Your task to perform on an android device: Do I have any events this weekend? Image 0: 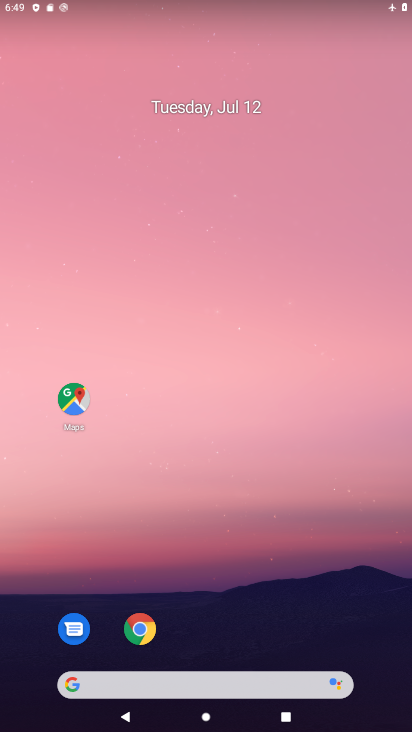
Step 0: drag from (257, 569) to (164, 90)
Your task to perform on an android device: Do I have any events this weekend? Image 1: 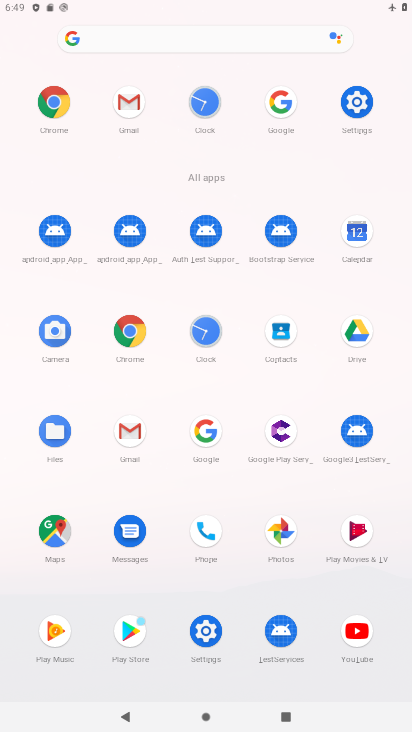
Step 1: click (358, 231)
Your task to perform on an android device: Do I have any events this weekend? Image 2: 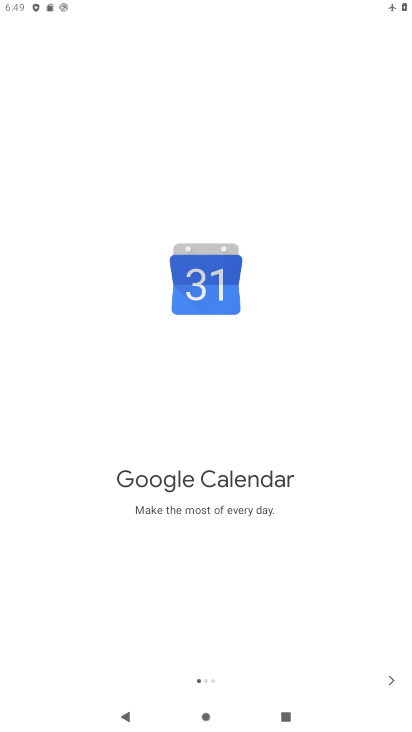
Step 2: click (387, 681)
Your task to perform on an android device: Do I have any events this weekend? Image 3: 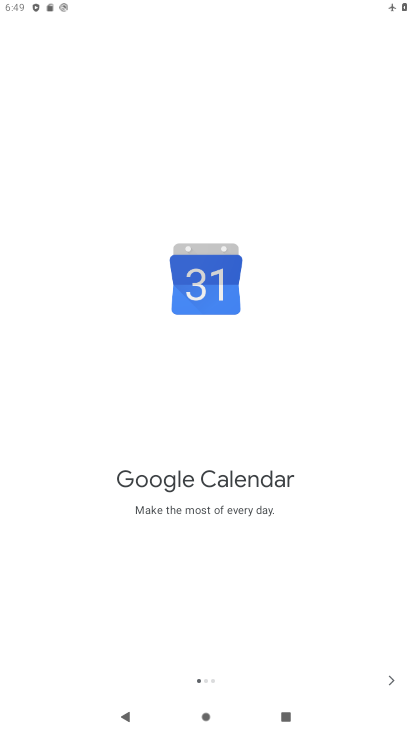
Step 3: click (387, 681)
Your task to perform on an android device: Do I have any events this weekend? Image 4: 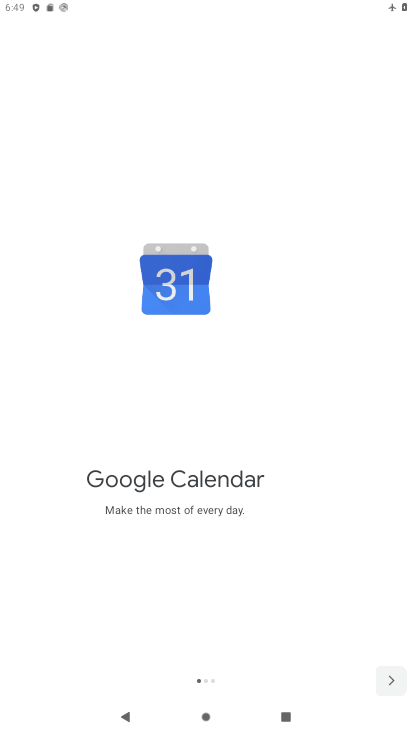
Step 4: click (387, 681)
Your task to perform on an android device: Do I have any events this weekend? Image 5: 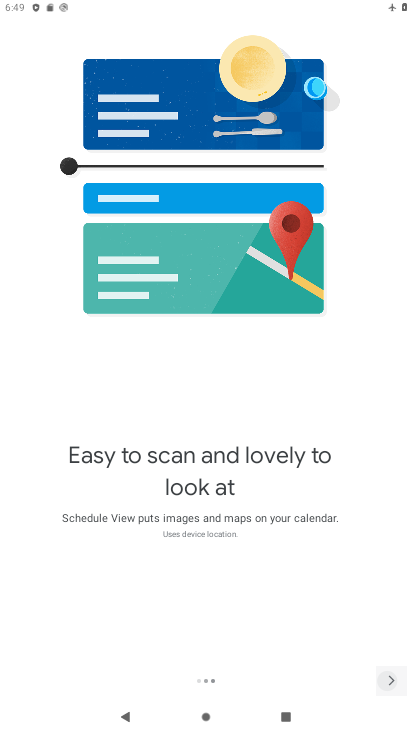
Step 5: click (387, 681)
Your task to perform on an android device: Do I have any events this weekend? Image 6: 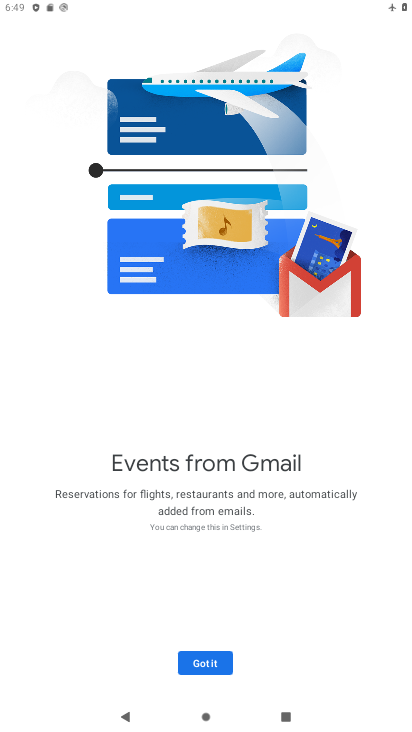
Step 6: click (215, 662)
Your task to perform on an android device: Do I have any events this weekend? Image 7: 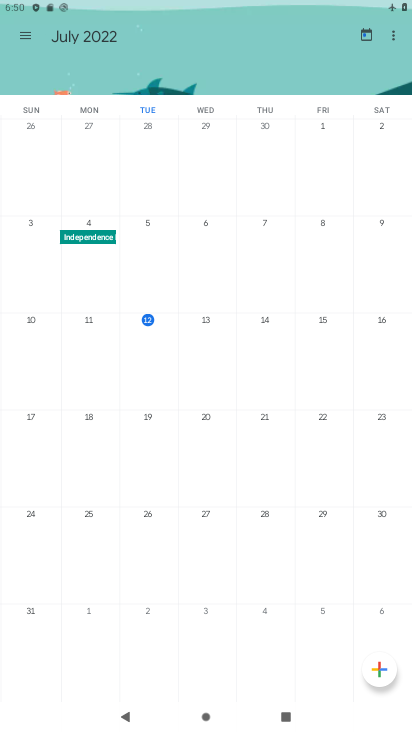
Step 7: click (29, 33)
Your task to perform on an android device: Do I have any events this weekend? Image 8: 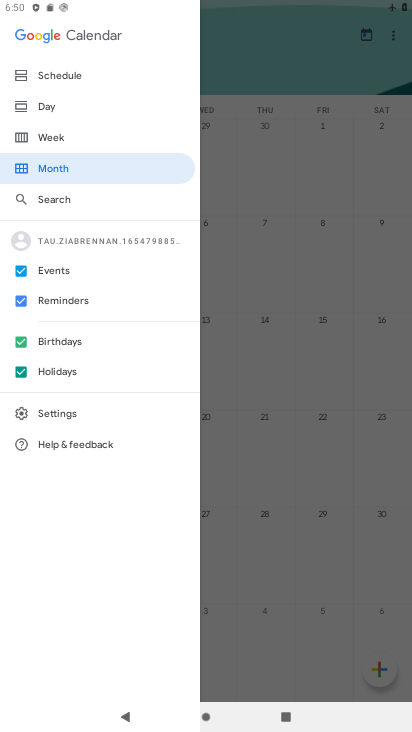
Step 8: click (58, 166)
Your task to perform on an android device: Do I have any events this weekend? Image 9: 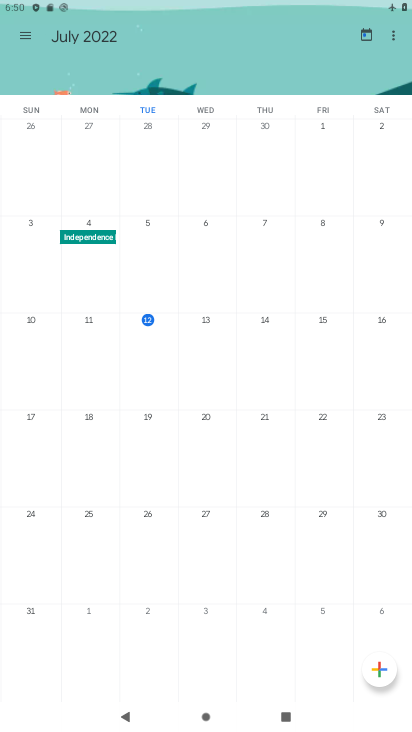
Step 9: click (20, 38)
Your task to perform on an android device: Do I have any events this weekend? Image 10: 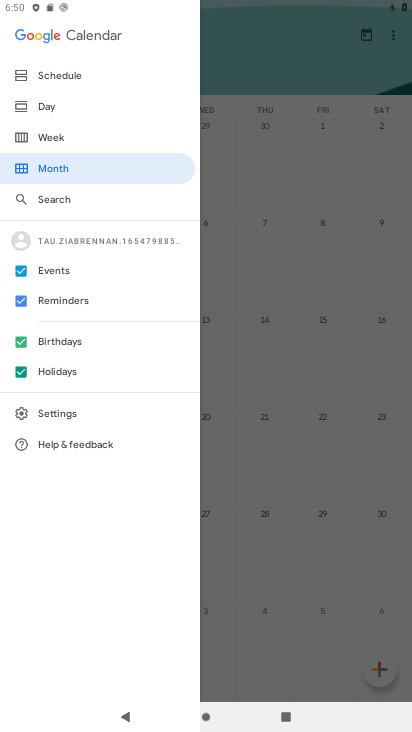
Step 10: click (54, 134)
Your task to perform on an android device: Do I have any events this weekend? Image 11: 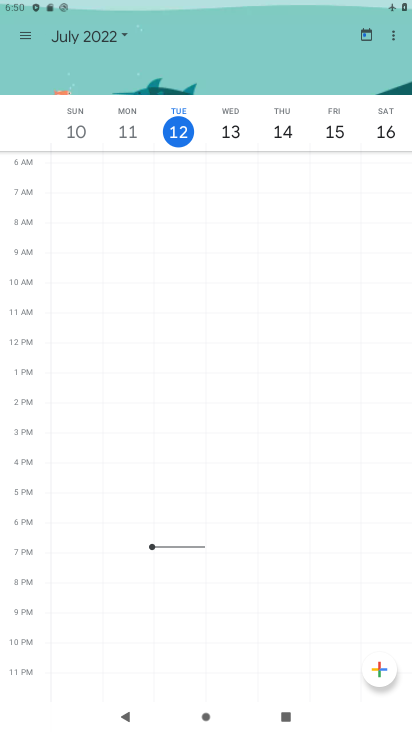
Step 11: task complete